Your task to perform on an android device: Clear the cart on newegg. Add razer naga to the cart on newegg Image 0: 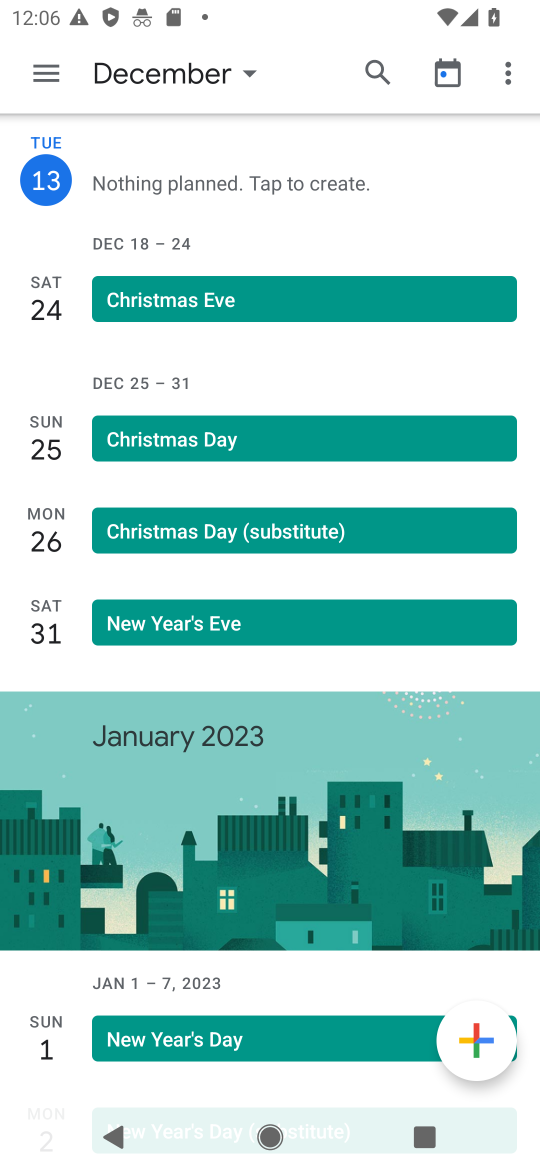
Step 0: task complete